Your task to perform on an android device: see sites visited before in the chrome app Image 0: 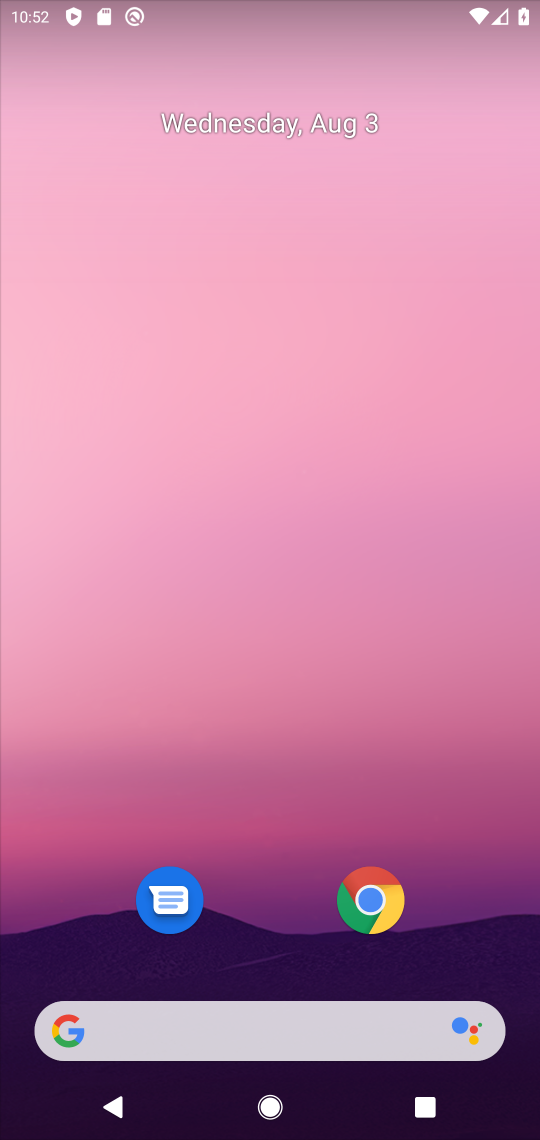
Step 0: press home button
Your task to perform on an android device: see sites visited before in the chrome app Image 1: 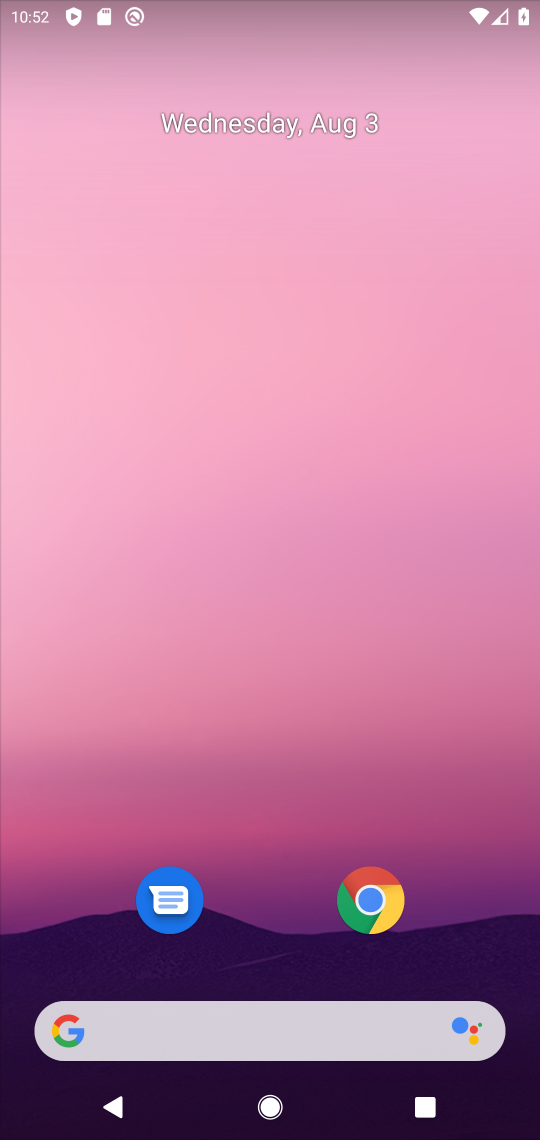
Step 1: click (347, 910)
Your task to perform on an android device: see sites visited before in the chrome app Image 2: 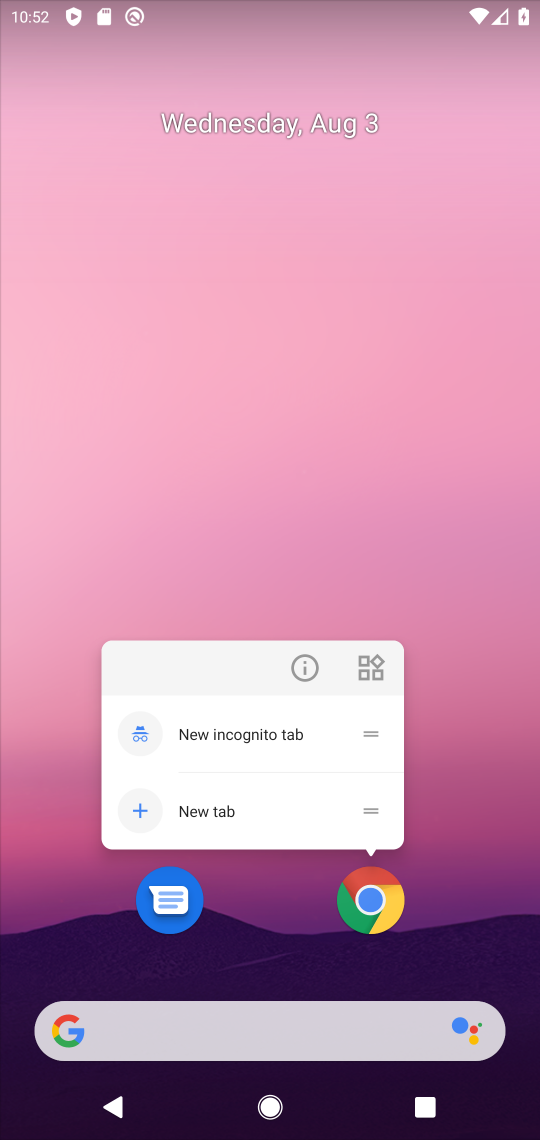
Step 2: click (366, 896)
Your task to perform on an android device: see sites visited before in the chrome app Image 3: 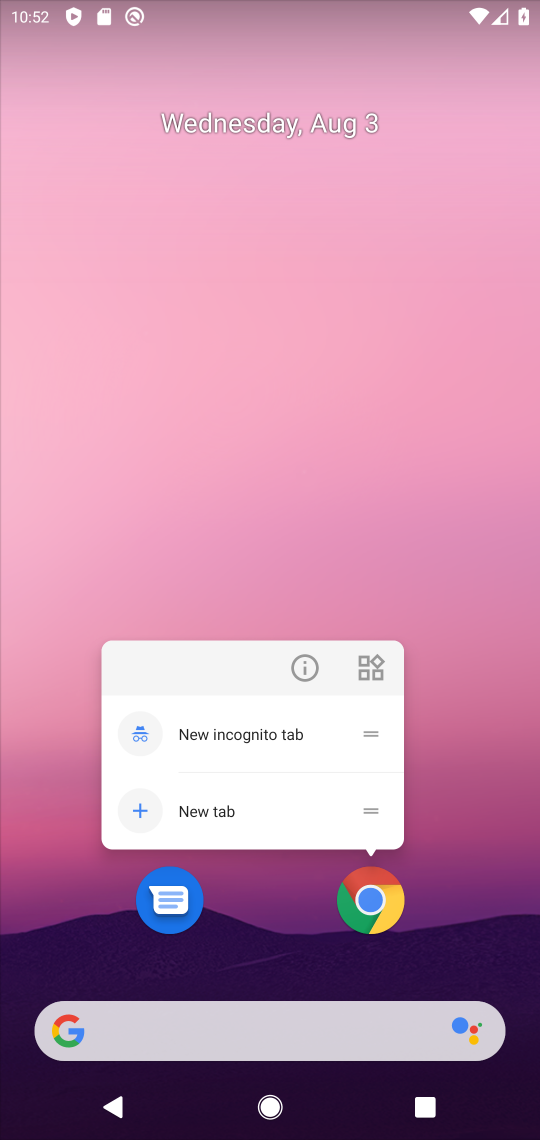
Step 3: click (337, 897)
Your task to perform on an android device: see sites visited before in the chrome app Image 4: 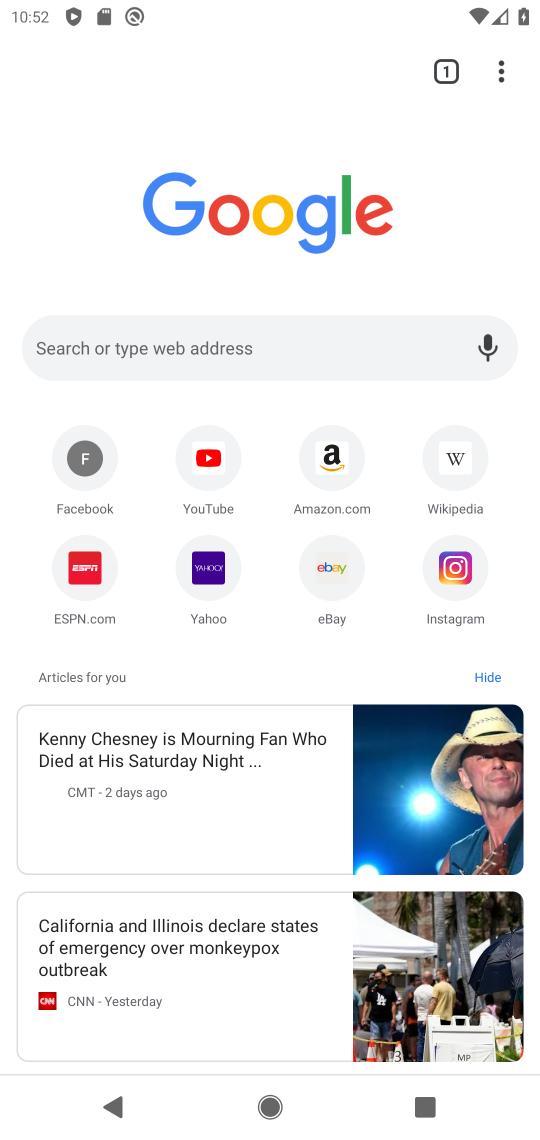
Step 4: click (496, 71)
Your task to perform on an android device: see sites visited before in the chrome app Image 5: 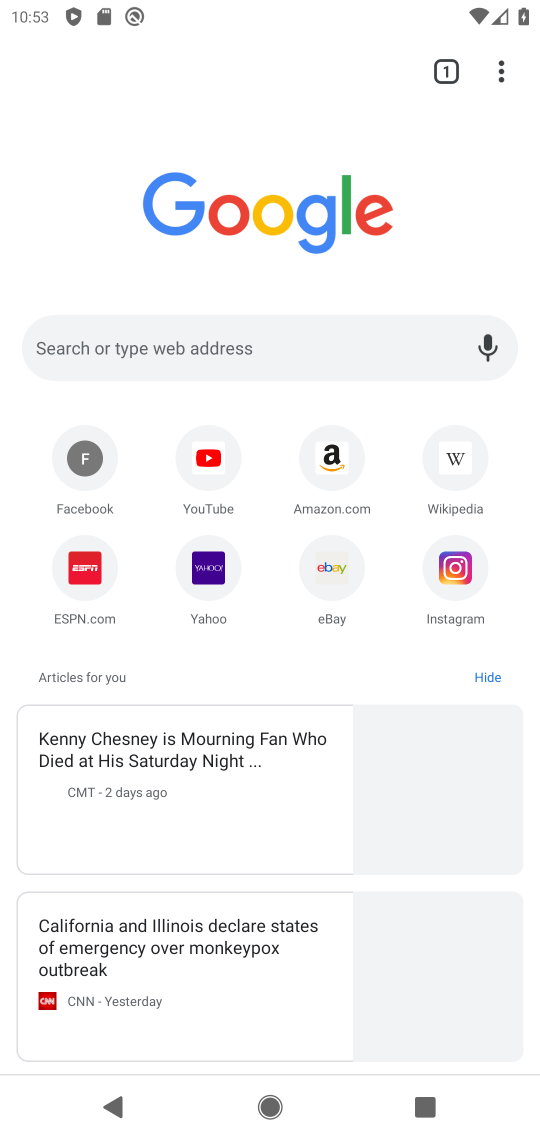
Step 5: task complete